Your task to perform on an android device: Go to battery settings Image 0: 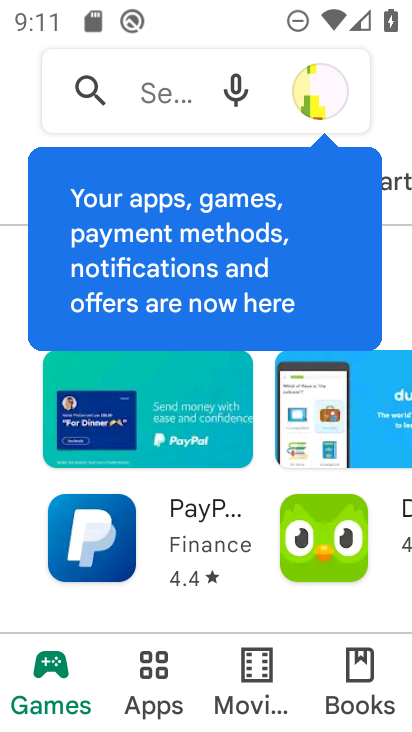
Step 0: press back button
Your task to perform on an android device: Go to battery settings Image 1: 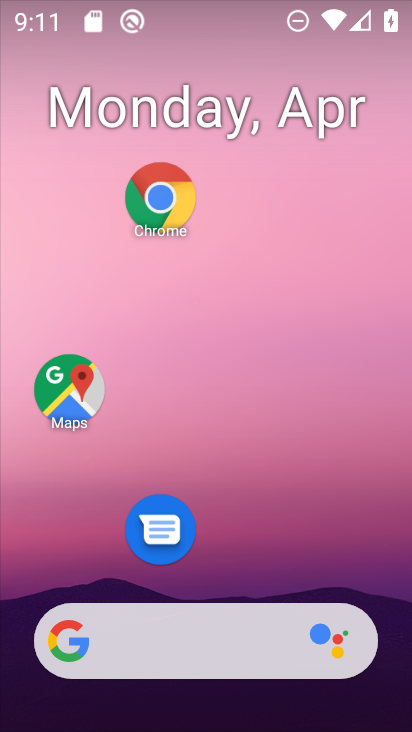
Step 1: drag from (233, 562) to (295, 0)
Your task to perform on an android device: Go to battery settings Image 2: 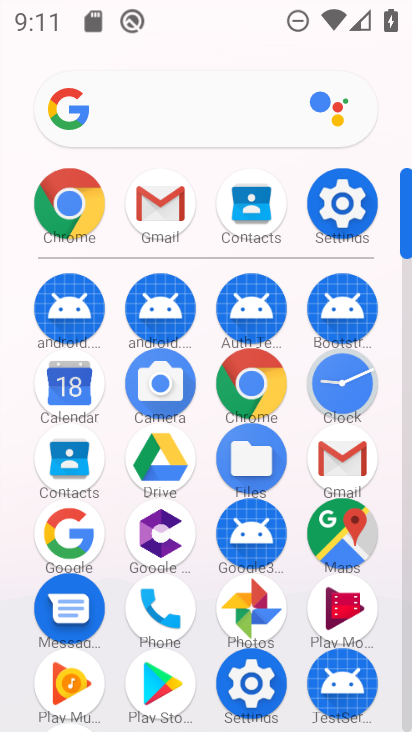
Step 2: click (343, 208)
Your task to perform on an android device: Go to battery settings Image 3: 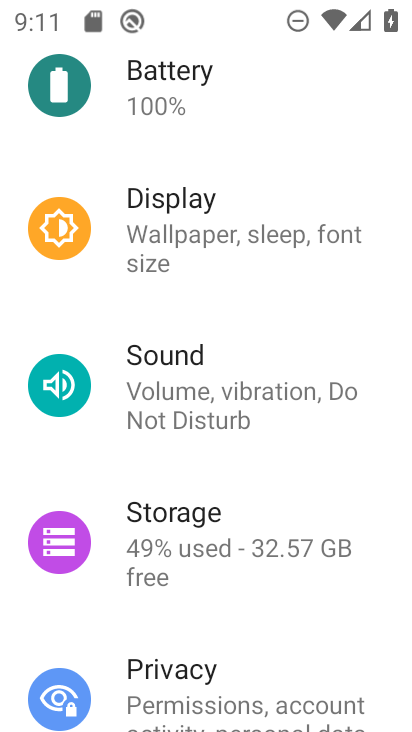
Step 3: click (151, 77)
Your task to perform on an android device: Go to battery settings Image 4: 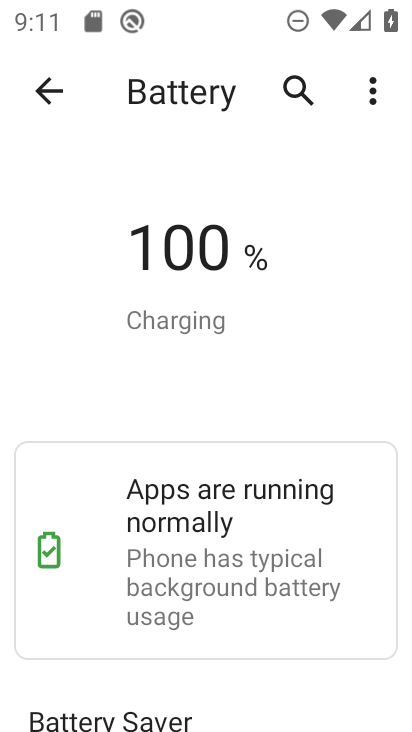
Step 4: task complete